Your task to perform on an android device: change the clock display to show seconds Image 0: 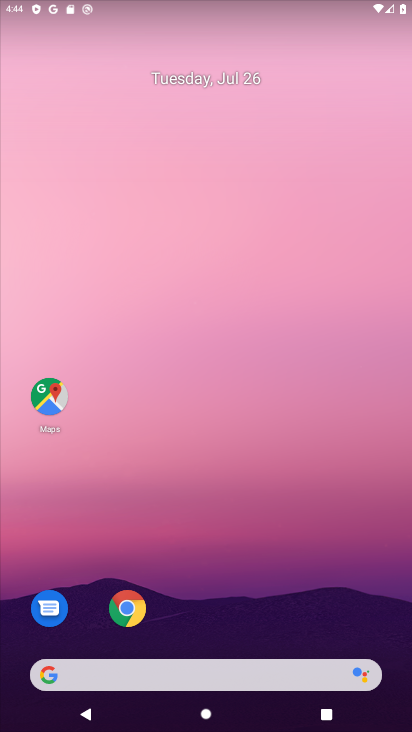
Step 0: drag from (266, 654) to (282, 138)
Your task to perform on an android device: change the clock display to show seconds Image 1: 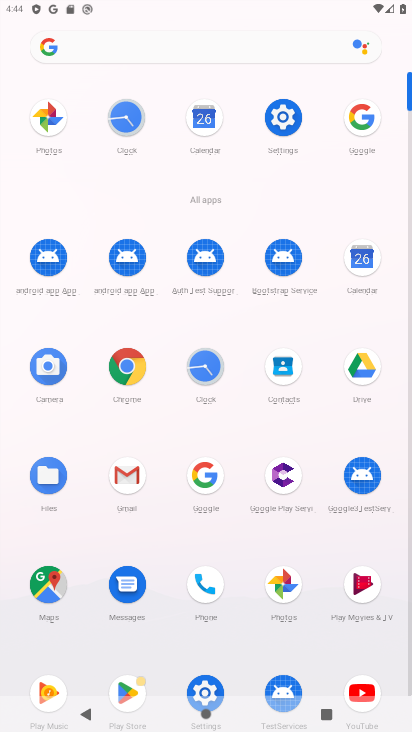
Step 1: click (209, 362)
Your task to perform on an android device: change the clock display to show seconds Image 2: 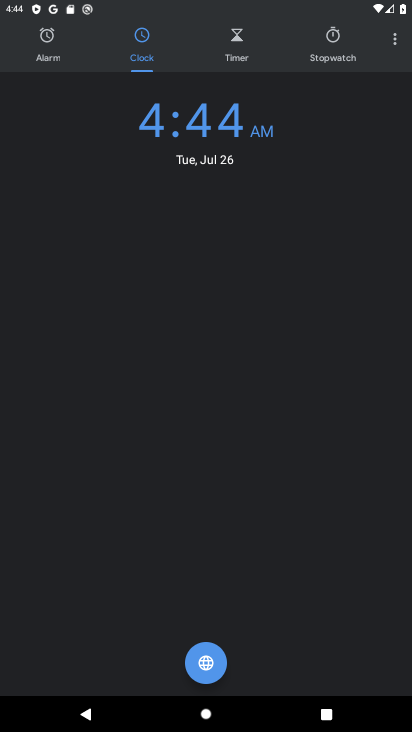
Step 2: click (392, 39)
Your task to perform on an android device: change the clock display to show seconds Image 3: 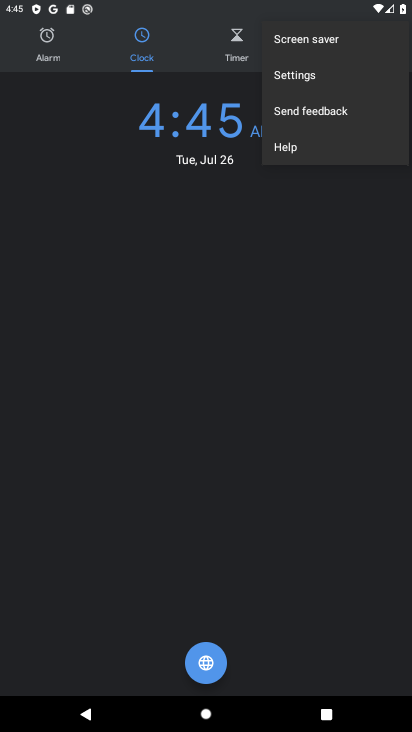
Step 3: click (301, 79)
Your task to perform on an android device: change the clock display to show seconds Image 4: 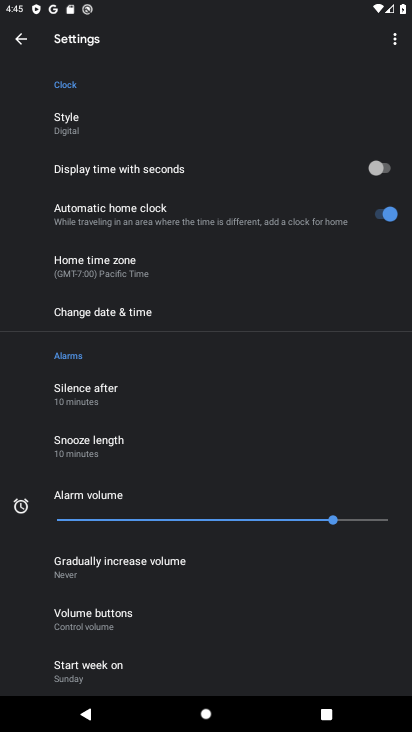
Step 4: click (379, 168)
Your task to perform on an android device: change the clock display to show seconds Image 5: 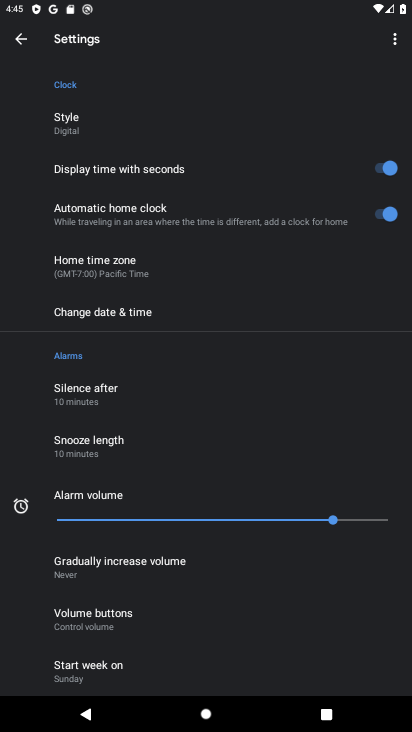
Step 5: task complete